Your task to perform on an android device: open app "Viber Messenger" (install if not already installed), go to login, and select forgot password Image 0: 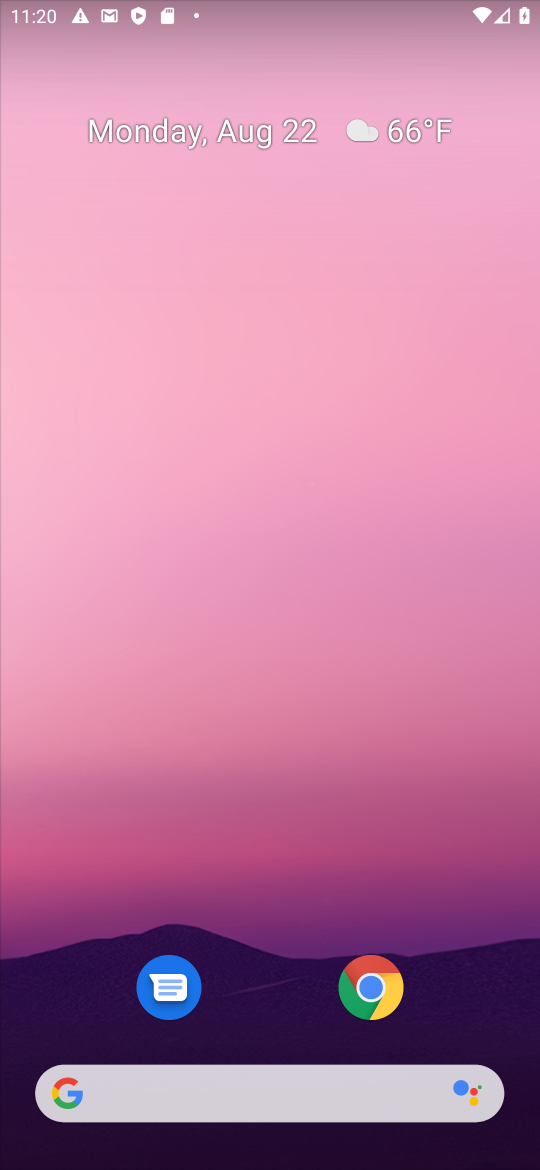
Step 0: press home button
Your task to perform on an android device: open app "Viber Messenger" (install if not already installed), go to login, and select forgot password Image 1: 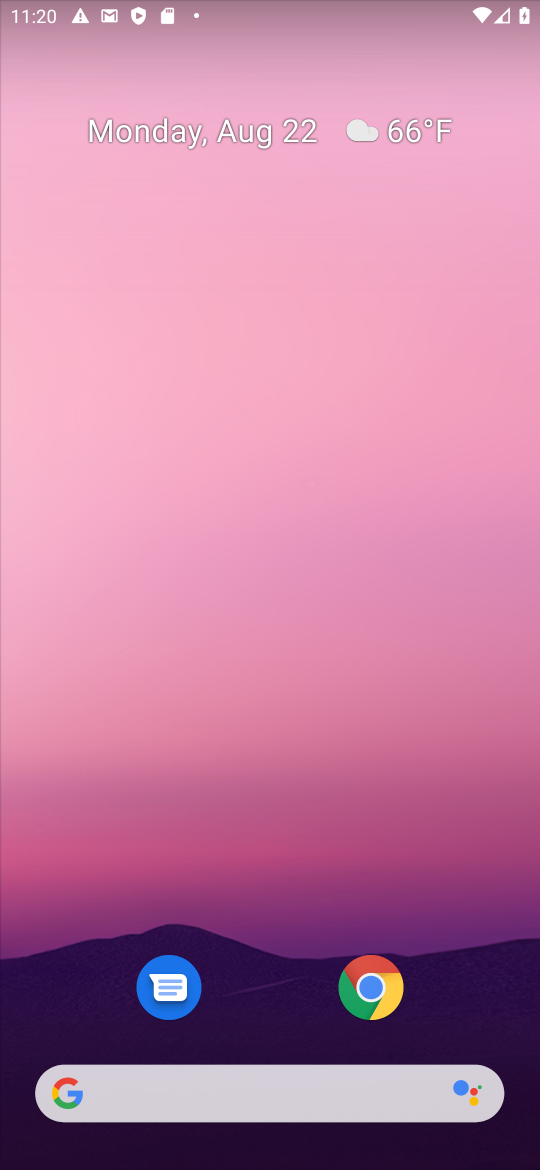
Step 1: drag from (481, 957) to (491, 71)
Your task to perform on an android device: open app "Viber Messenger" (install if not already installed), go to login, and select forgot password Image 2: 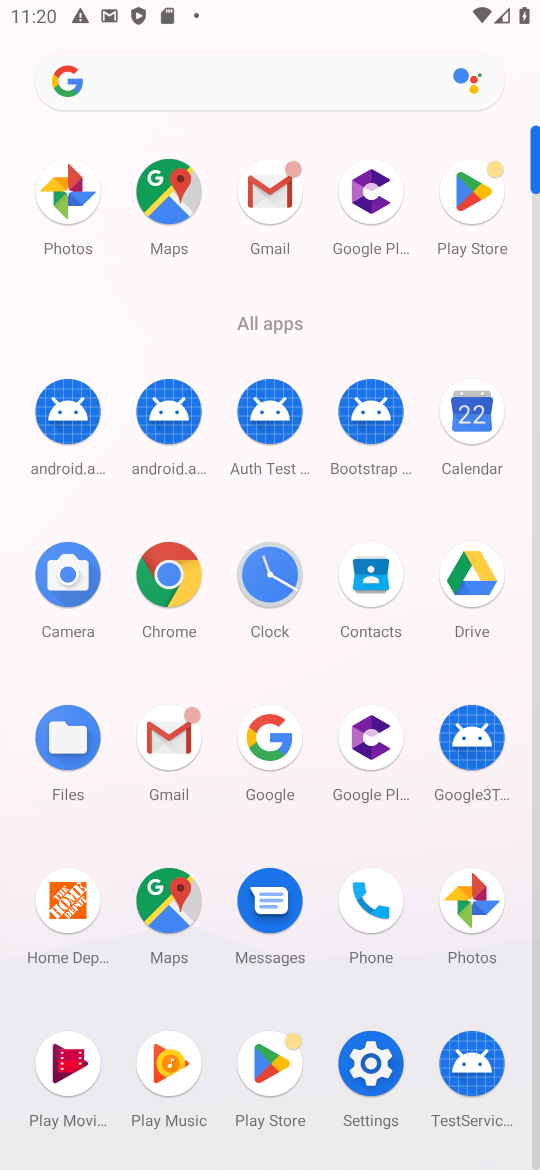
Step 2: click (479, 191)
Your task to perform on an android device: open app "Viber Messenger" (install if not already installed), go to login, and select forgot password Image 3: 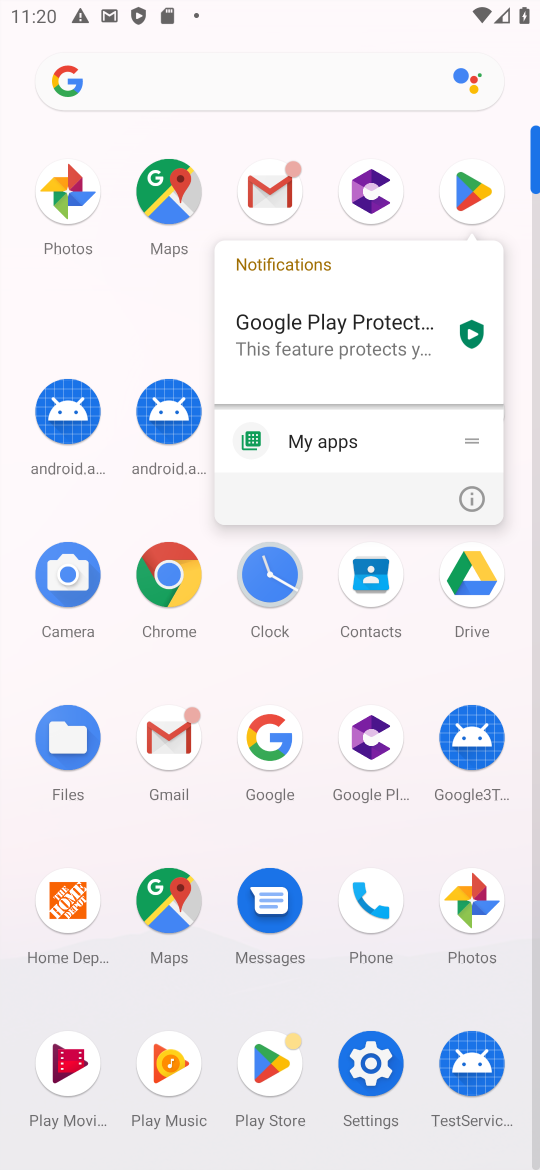
Step 3: click (477, 197)
Your task to perform on an android device: open app "Viber Messenger" (install if not already installed), go to login, and select forgot password Image 4: 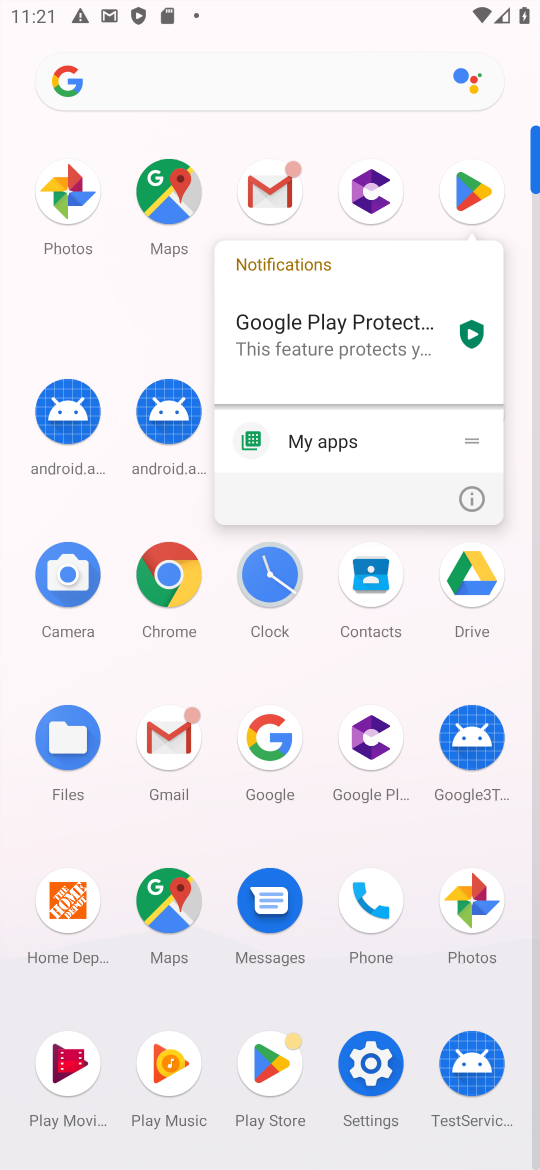
Step 4: click (483, 185)
Your task to perform on an android device: open app "Viber Messenger" (install if not already installed), go to login, and select forgot password Image 5: 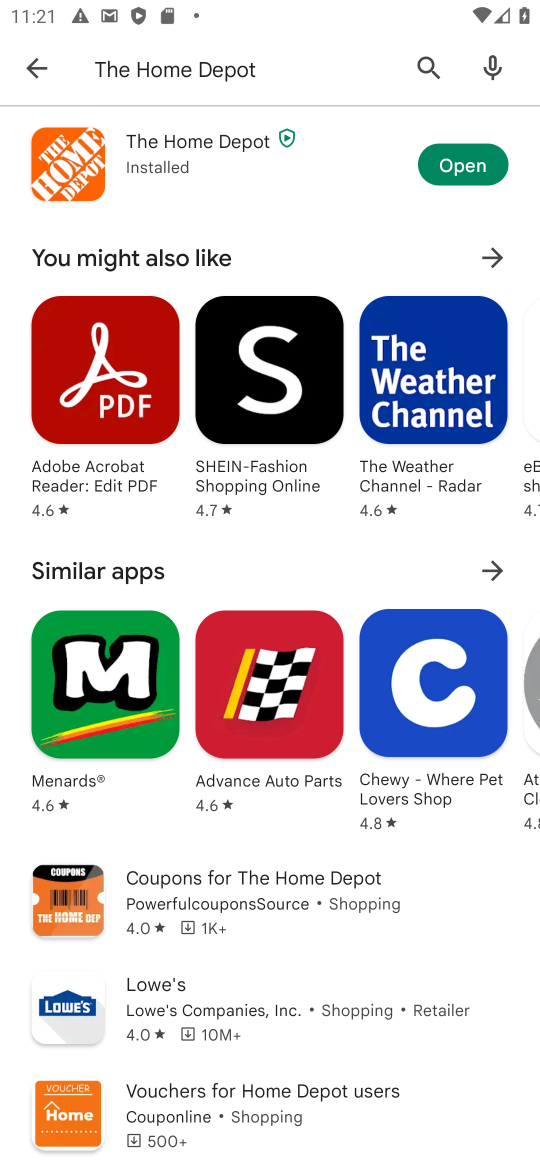
Step 5: press back button
Your task to perform on an android device: open app "Viber Messenger" (install if not already installed), go to login, and select forgot password Image 6: 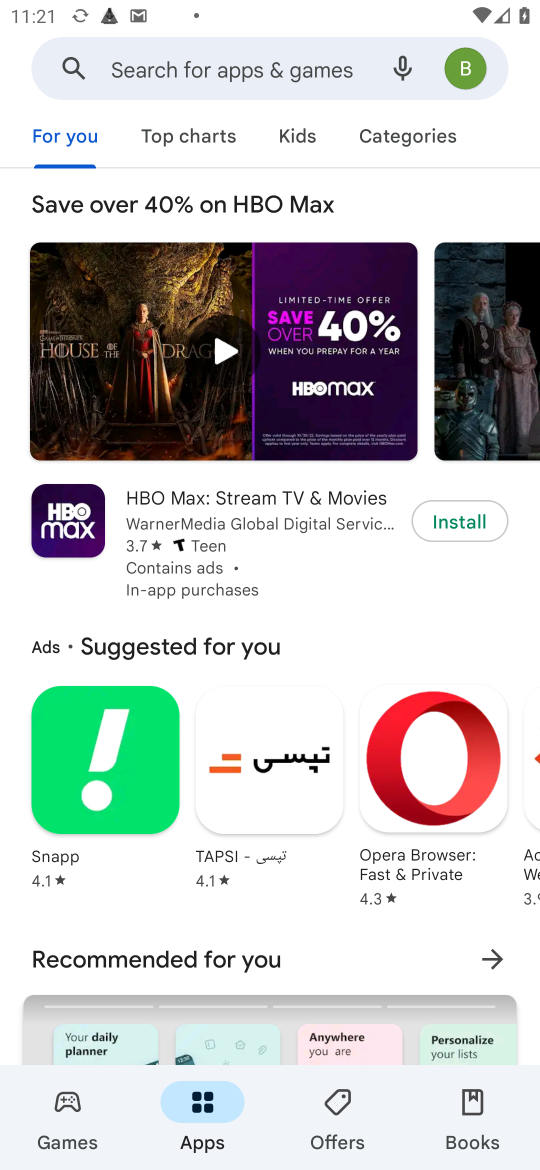
Step 6: click (140, 61)
Your task to perform on an android device: open app "Viber Messenger" (install if not already installed), go to login, and select forgot password Image 7: 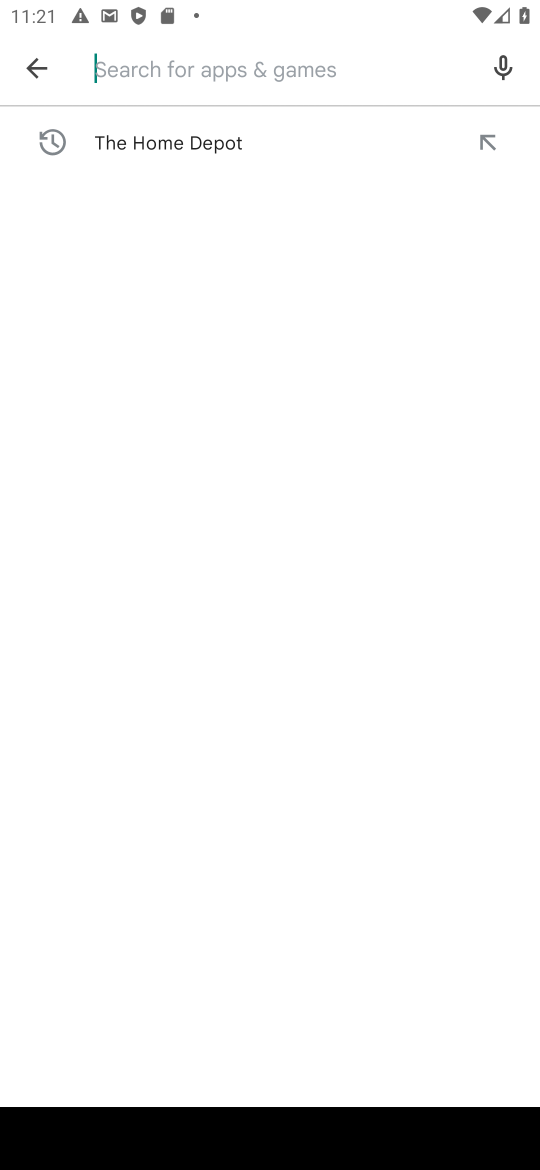
Step 7: type "Viber Messenger"
Your task to perform on an android device: open app "Viber Messenger" (install if not already installed), go to login, and select forgot password Image 8: 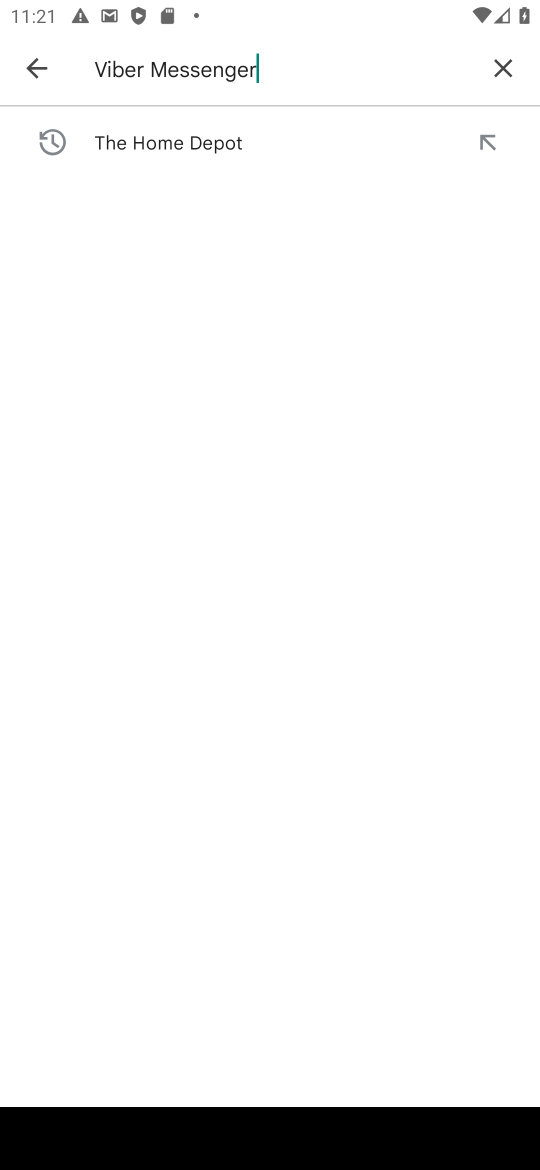
Step 8: press enter
Your task to perform on an android device: open app "Viber Messenger" (install if not already installed), go to login, and select forgot password Image 9: 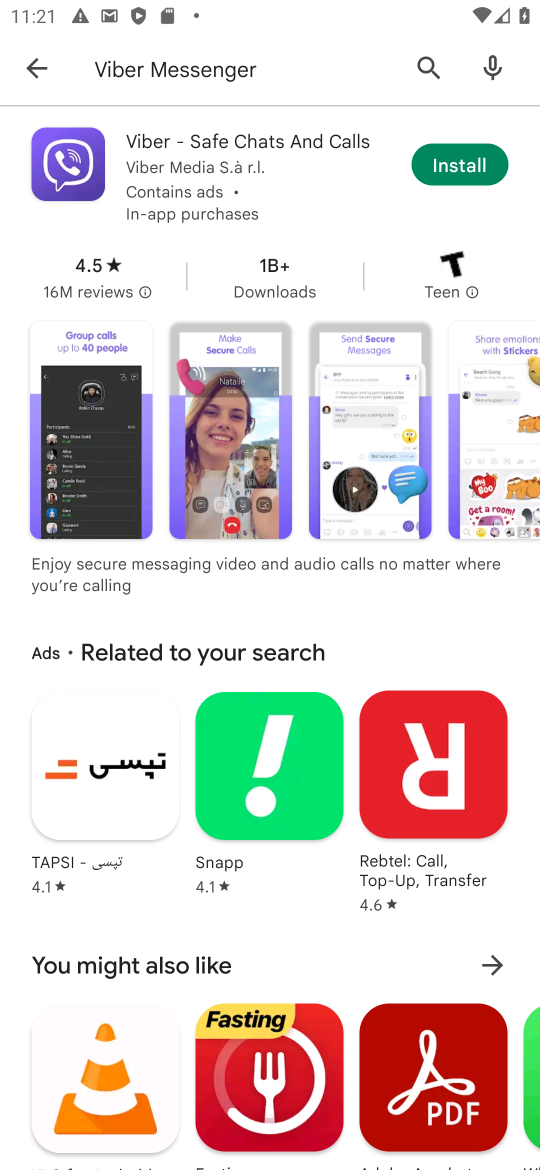
Step 9: click (459, 157)
Your task to perform on an android device: open app "Viber Messenger" (install if not already installed), go to login, and select forgot password Image 10: 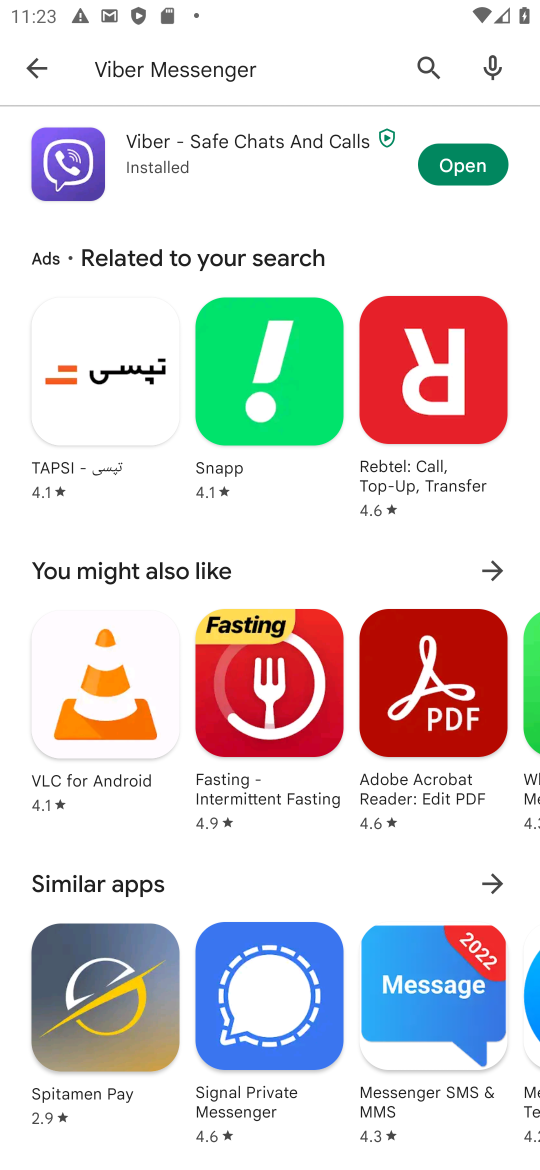
Step 10: click (475, 160)
Your task to perform on an android device: open app "Viber Messenger" (install if not already installed), go to login, and select forgot password Image 11: 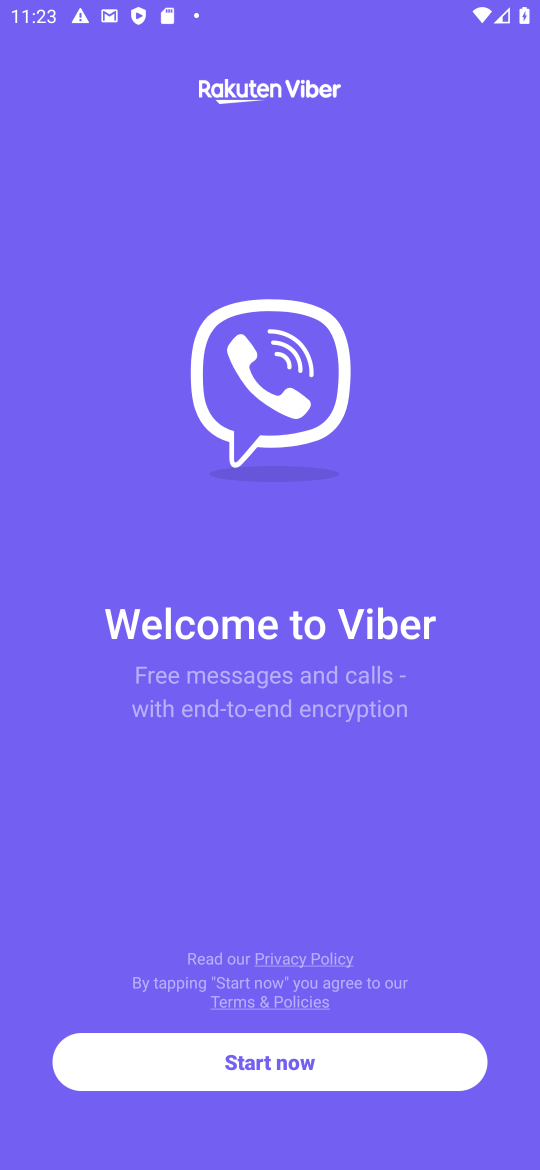
Step 11: click (343, 1081)
Your task to perform on an android device: open app "Viber Messenger" (install if not already installed), go to login, and select forgot password Image 12: 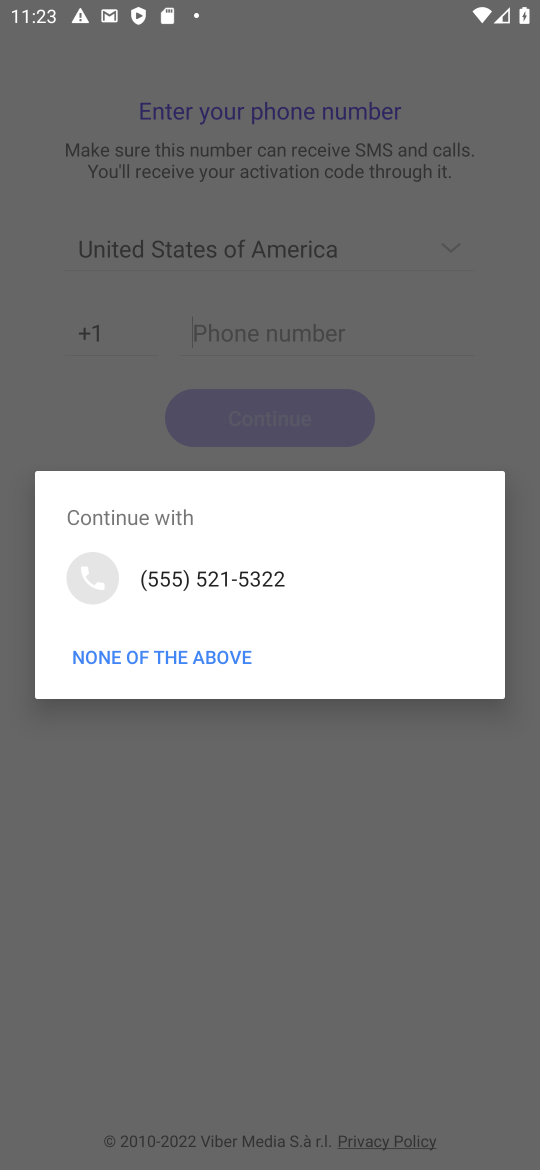
Step 12: click (240, 643)
Your task to perform on an android device: open app "Viber Messenger" (install if not already installed), go to login, and select forgot password Image 13: 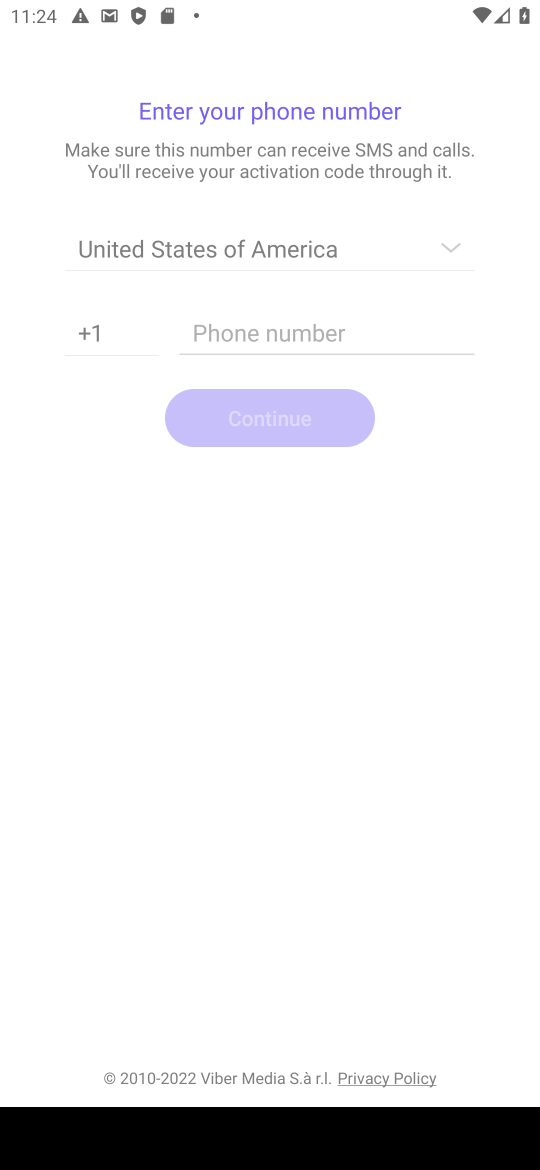
Step 13: task complete